Your task to perform on an android device: Go to Yahoo.com Image 0: 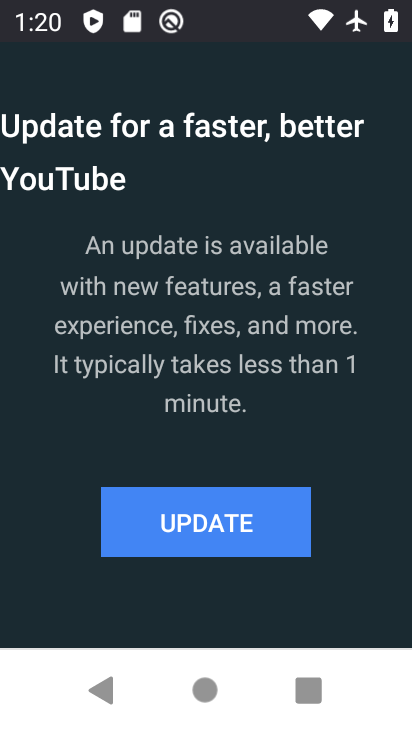
Step 0: press home button
Your task to perform on an android device: Go to Yahoo.com Image 1: 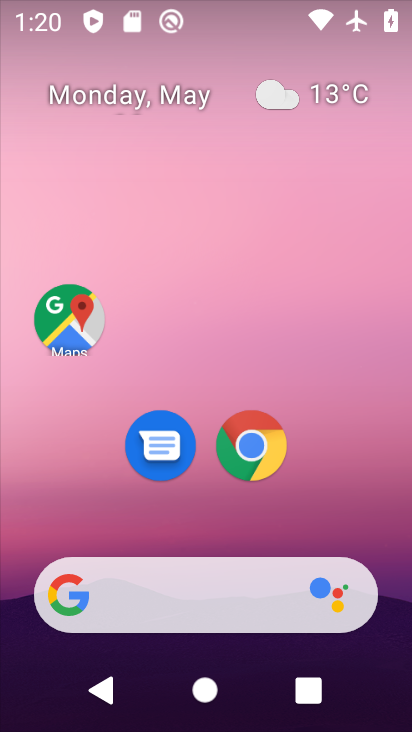
Step 1: drag from (402, 606) to (335, 216)
Your task to perform on an android device: Go to Yahoo.com Image 2: 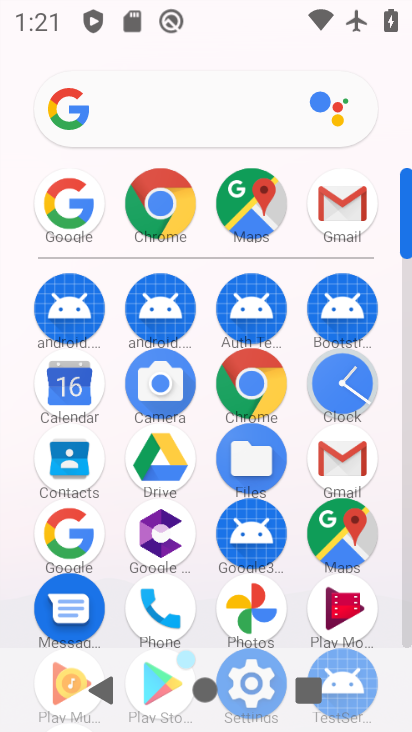
Step 2: click (249, 380)
Your task to perform on an android device: Go to Yahoo.com Image 3: 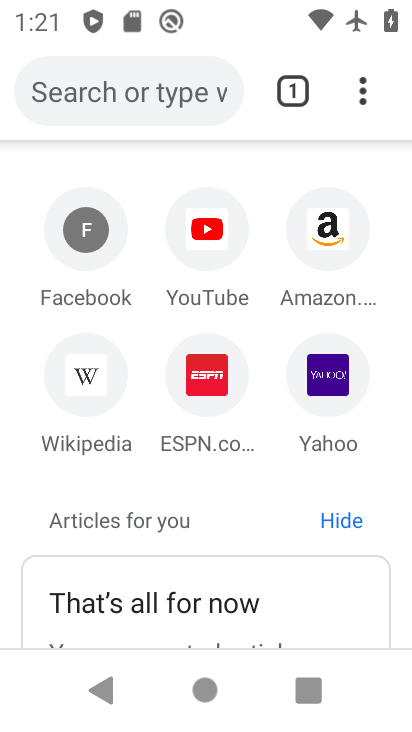
Step 3: click (326, 369)
Your task to perform on an android device: Go to Yahoo.com Image 4: 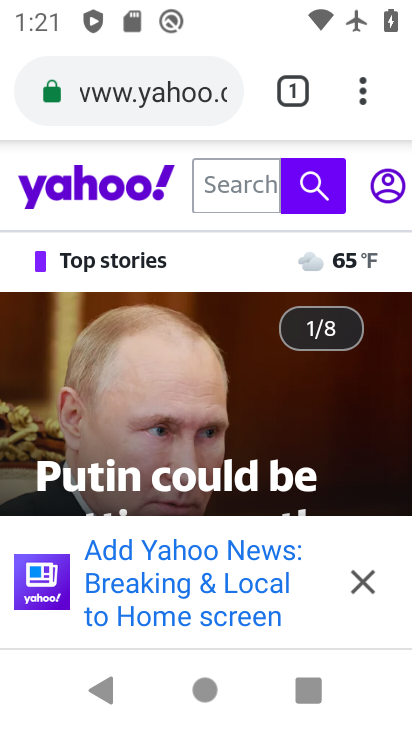
Step 4: task complete